Your task to perform on an android device: Show me productivity apps on the Play Store Image 0: 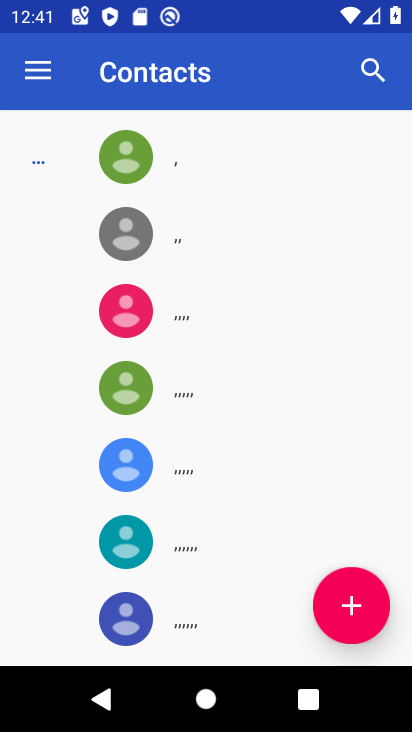
Step 0: press home button
Your task to perform on an android device: Show me productivity apps on the Play Store Image 1: 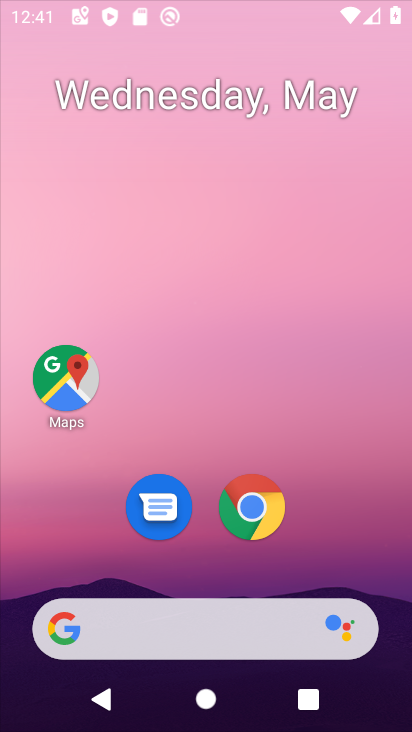
Step 1: drag from (245, 579) to (258, 247)
Your task to perform on an android device: Show me productivity apps on the Play Store Image 2: 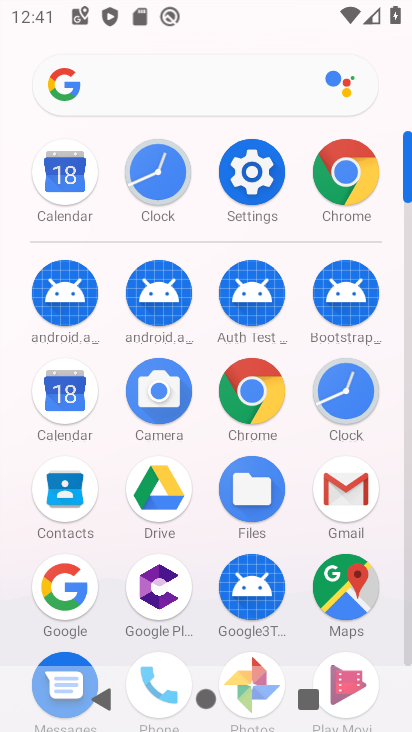
Step 2: click (237, 169)
Your task to perform on an android device: Show me productivity apps on the Play Store Image 3: 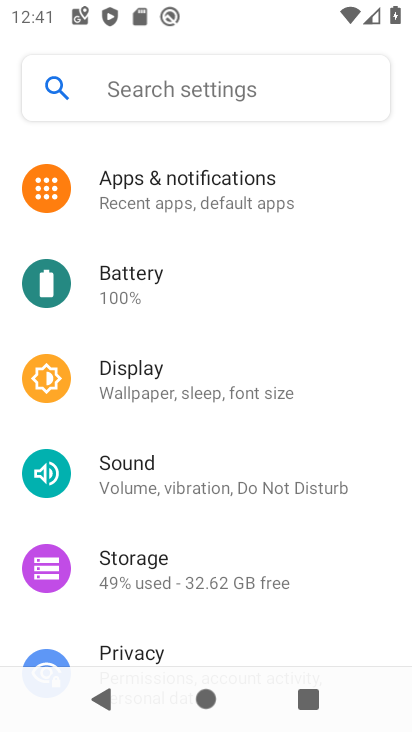
Step 3: press home button
Your task to perform on an android device: Show me productivity apps on the Play Store Image 4: 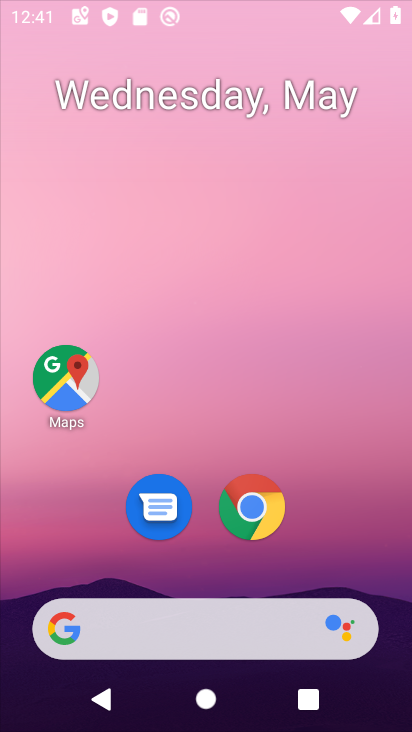
Step 4: drag from (153, 608) to (213, 275)
Your task to perform on an android device: Show me productivity apps on the Play Store Image 5: 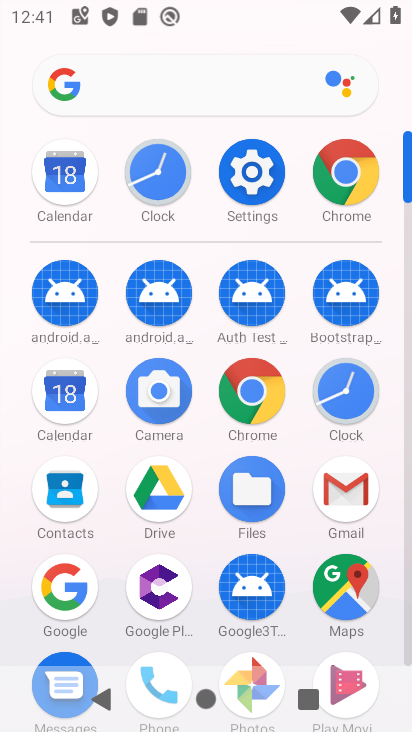
Step 5: drag from (161, 562) to (220, 322)
Your task to perform on an android device: Show me productivity apps on the Play Store Image 6: 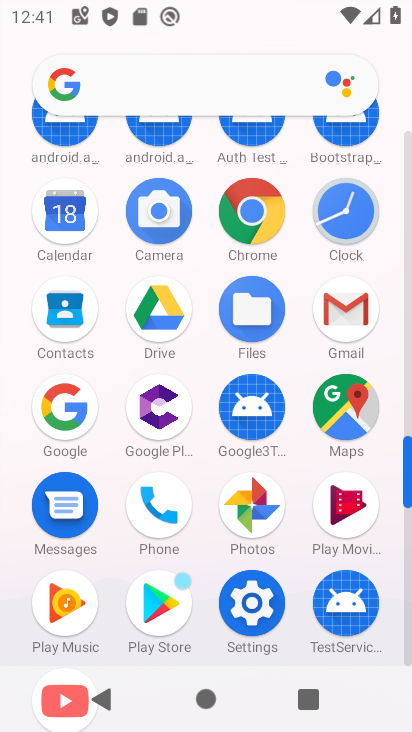
Step 6: click (162, 589)
Your task to perform on an android device: Show me productivity apps on the Play Store Image 7: 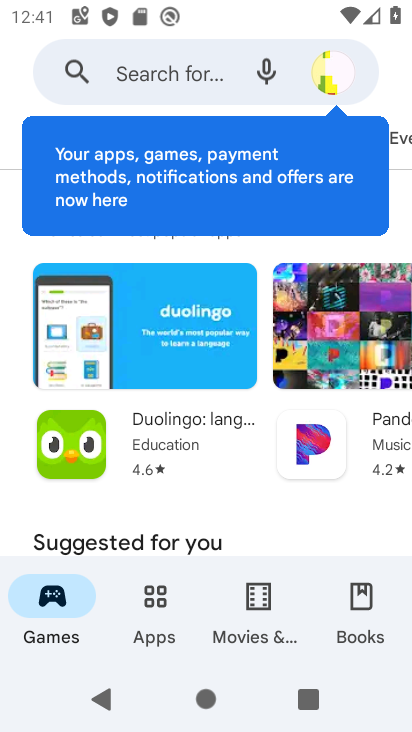
Step 7: click (163, 591)
Your task to perform on an android device: Show me productivity apps on the Play Store Image 8: 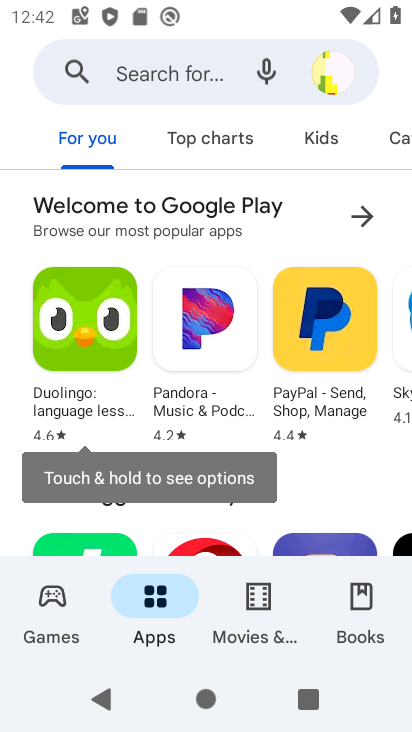
Step 8: task complete